Your task to perform on an android device: Go to Reddit.com Image 0: 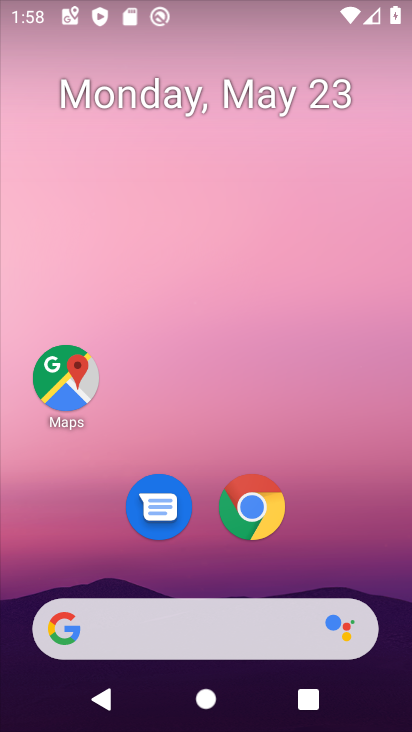
Step 0: click (256, 514)
Your task to perform on an android device: Go to Reddit.com Image 1: 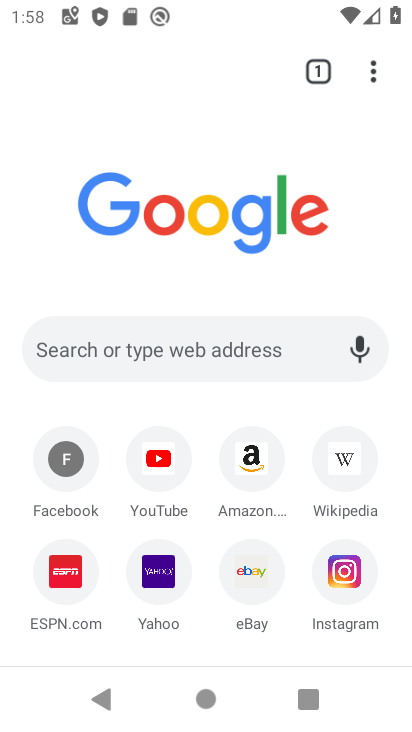
Step 1: click (373, 75)
Your task to perform on an android device: Go to Reddit.com Image 2: 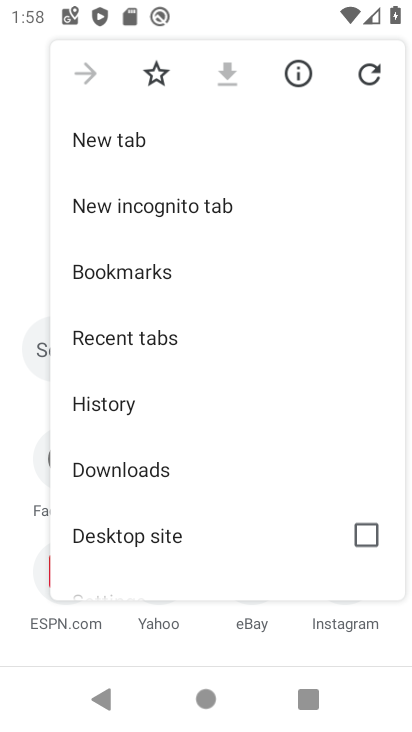
Step 2: click (106, 145)
Your task to perform on an android device: Go to Reddit.com Image 3: 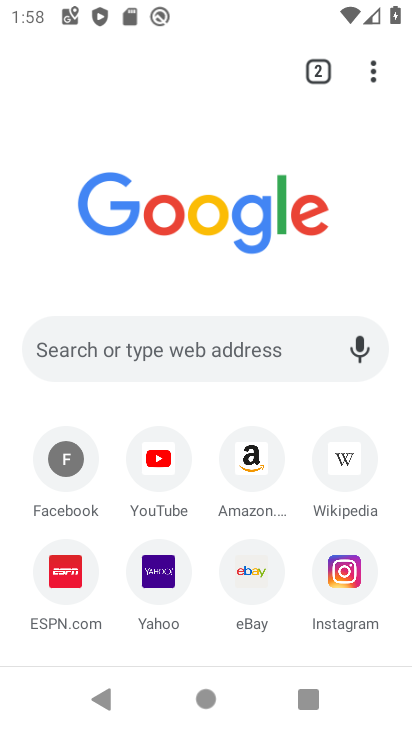
Step 3: click (236, 346)
Your task to perform on an android device: Go to Reddit.com Image 4: 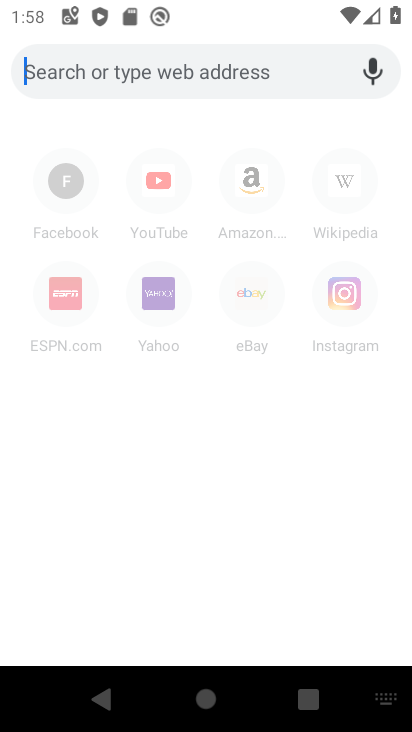
Step 4: type "Reddit.com"
Your task to perform on an android device: Go to Reddit.com Image 5: 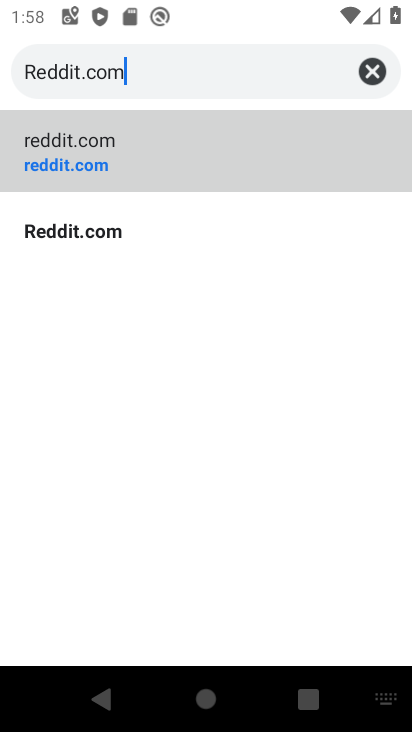
Step 5: type ""
Your task to perform on an android device: Go to Reddit.com Image 6: 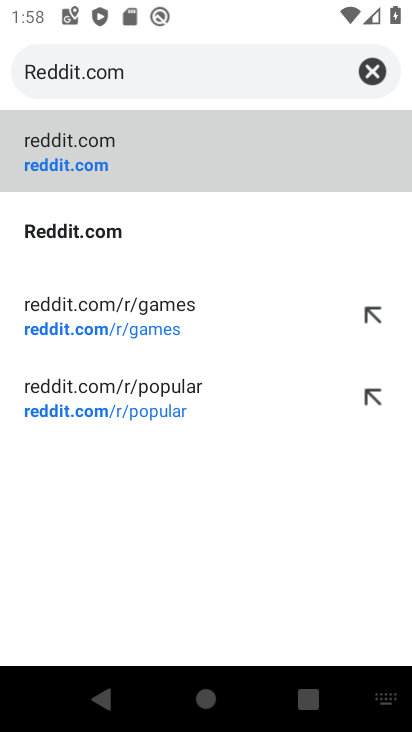
Step 6: click (124, 155)
Your task to perform on an android device: Go to Reddit.com Image 7: 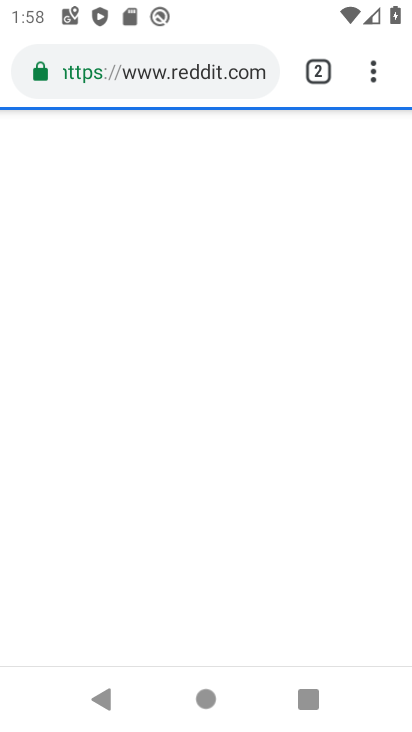
Step 7: click (123, 156)
Your task to perform on an android device: Go to Reddit.com Image 8: 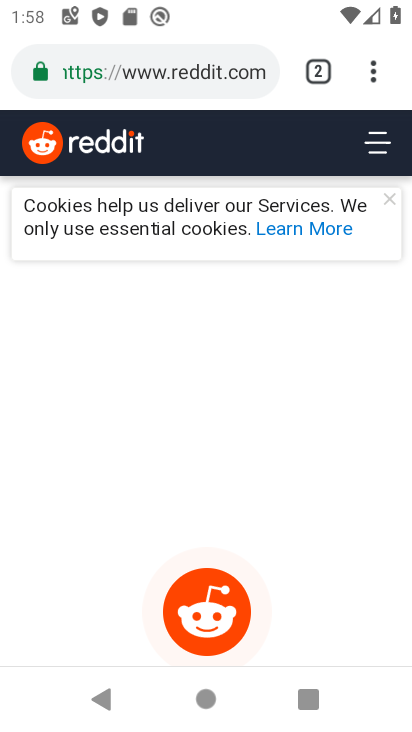
Step 8: task complete